Your task to perform on an android device: Open Youtube and go to "Your channel" Image 0: 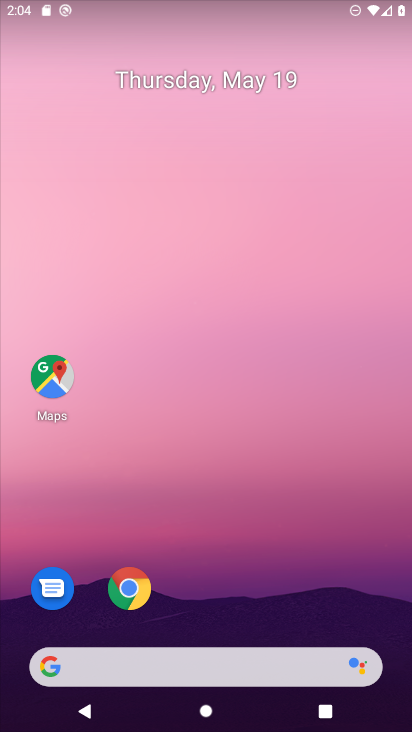
Step 0: drag from (329, 640) to (347, 8)
Your task to perform on an android device: Open Youtube and go to "Your channel" Image 1: 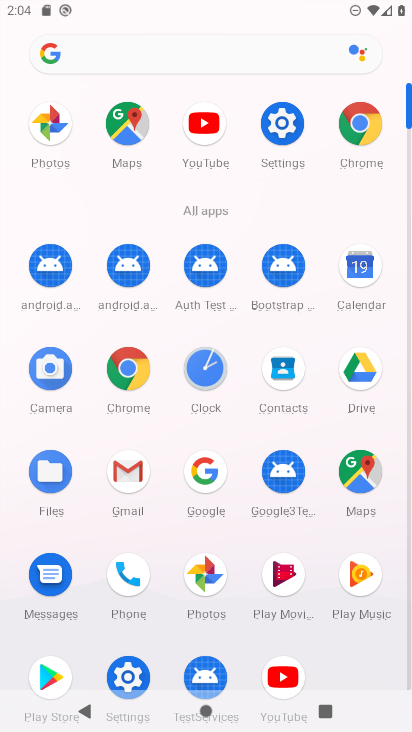
Step 1: click (285, 678)
Your task to perform on an android device: Open Youtube and go to "Your channel" Image 2: 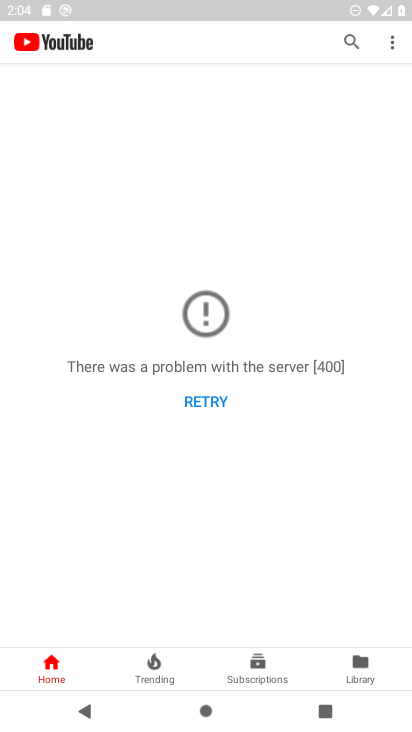
Step 2: task complete